Your task to perform on an android device: toggle notification dots Image 0: 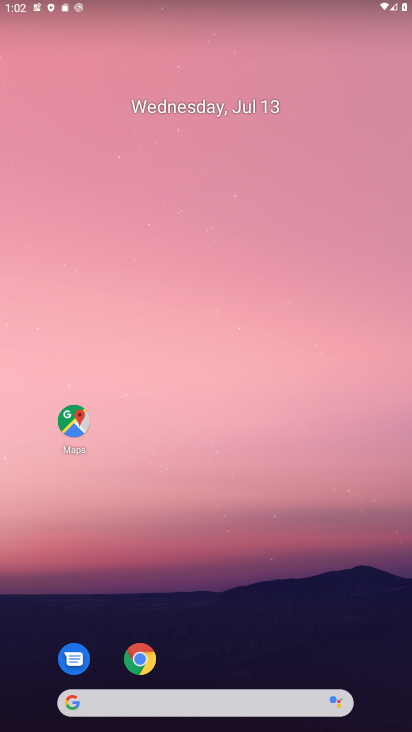
Step 0: drag from (268, 651) to (305, 95)
Your task to perform on an android device: toggle notification dots Image 1: 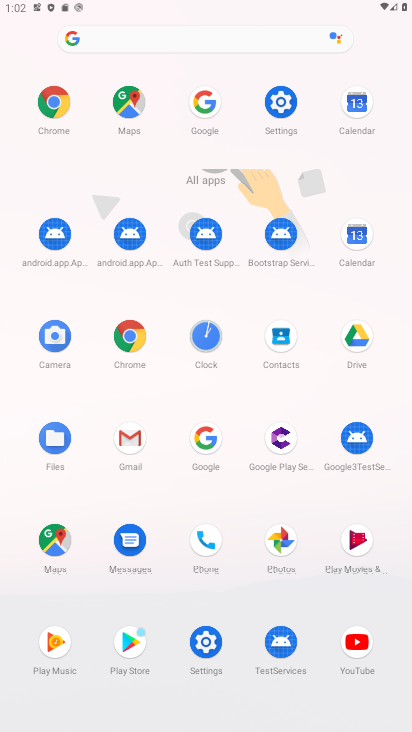
Step 1: click (284, 97)
Your task to perform on an android device: toggle notification dots Image 2: 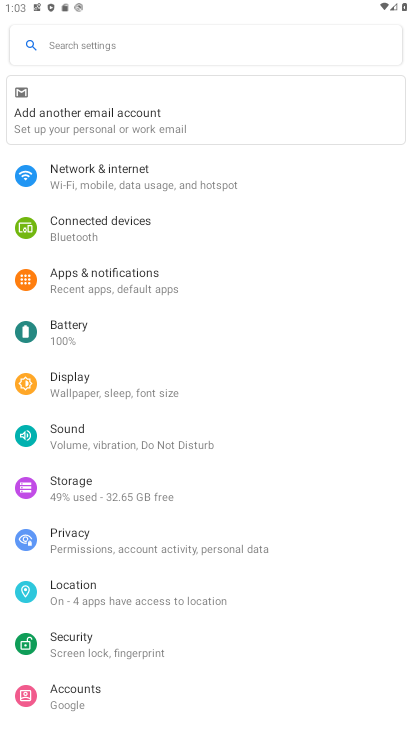
Step 2: click (124, 287)
Your task to perform on an android device: toggle notification dots Image 3: 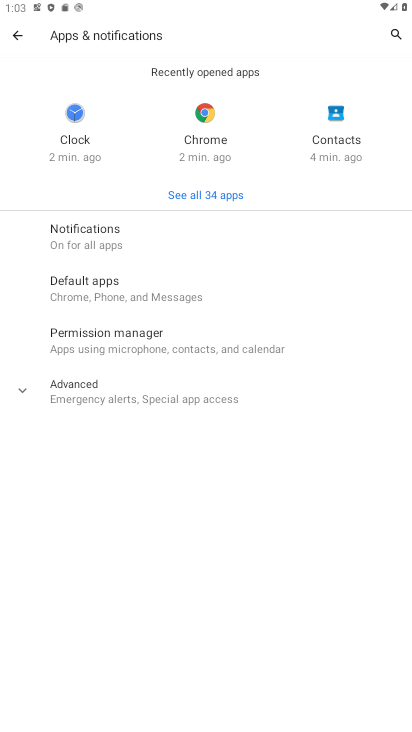
Step 3: click (146, 239)
Your task to perform on an android device: toggle notification dots Image 4: 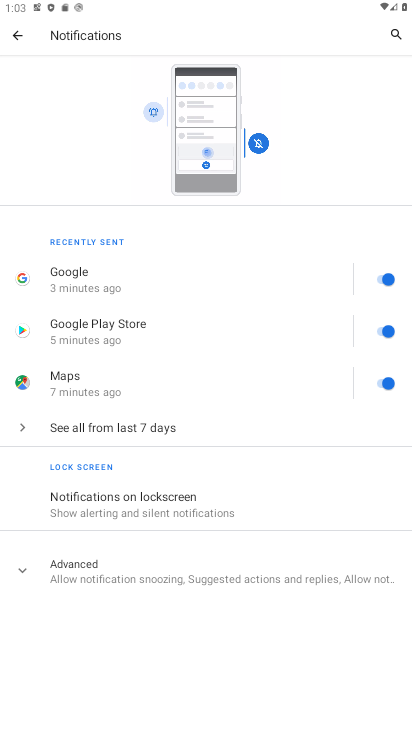
Step 4: click (59, 573)
Your task to perform on an android device: toggle notification dots Image 5: 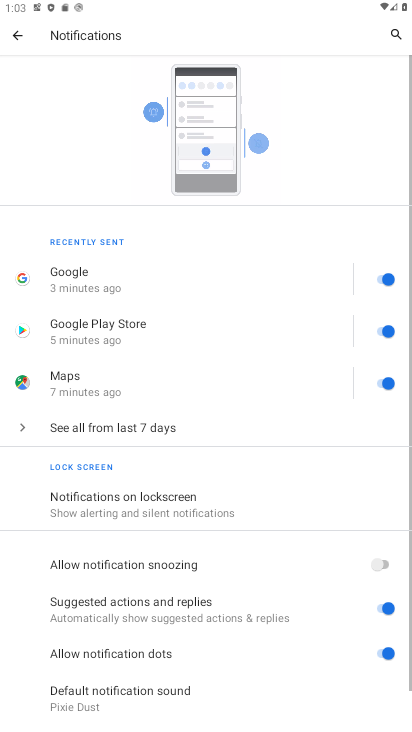
Step 5: drag from (191, 561) to (224, 272)
Your task to perform on an android device: toggle notification dots Image 6: 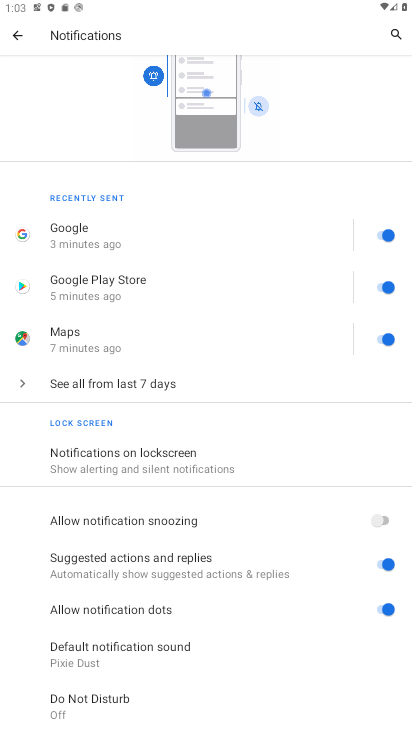
Step 6: click (393, 613)
Your task to perform on an android device: toggle notification dots Image 7: 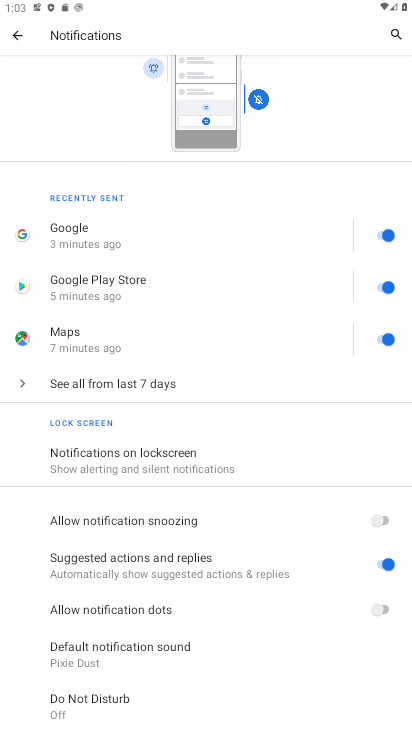
Step 7: task complete